Your task to perform on an android device: When is my next appointment? Image 0: 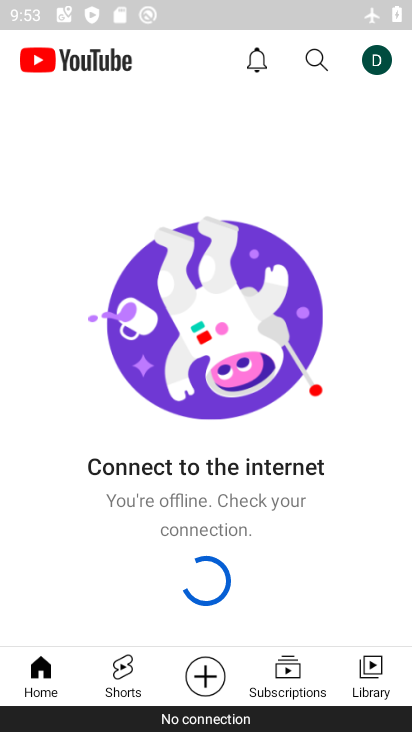
Step 0: press home button
Your task to perform on an android device: When is my next appointment? Image 1: 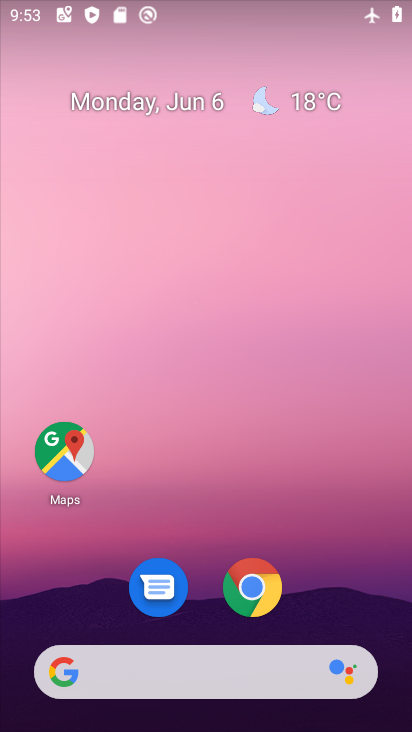
Step 1: drag from (323, 558) to (336, 172)
Your task to perform on an android device: When is my next appointment? Image 2: 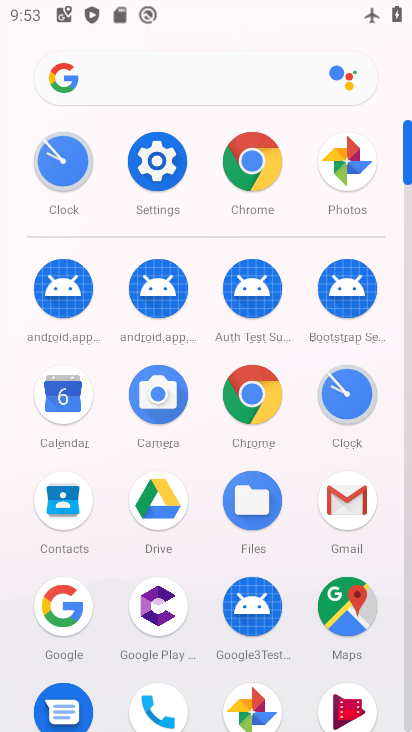
Step 2: click (63, 401)
Your task to perform on an android device: When is my next appointment? Image 3: 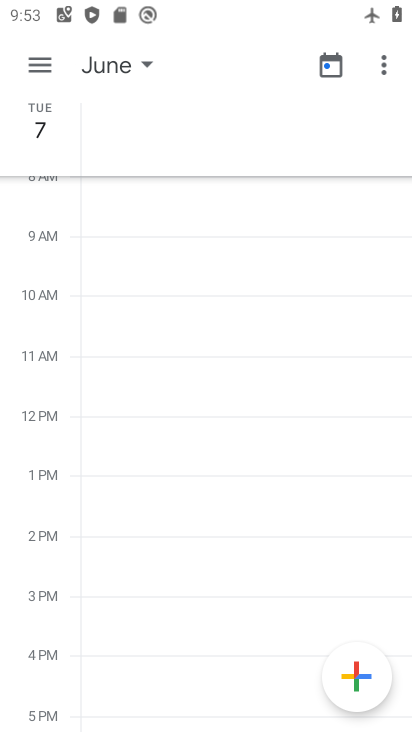
Step 3: click (100, 65)
Your task to perform on an android device: When is my next appointment? Image 4: 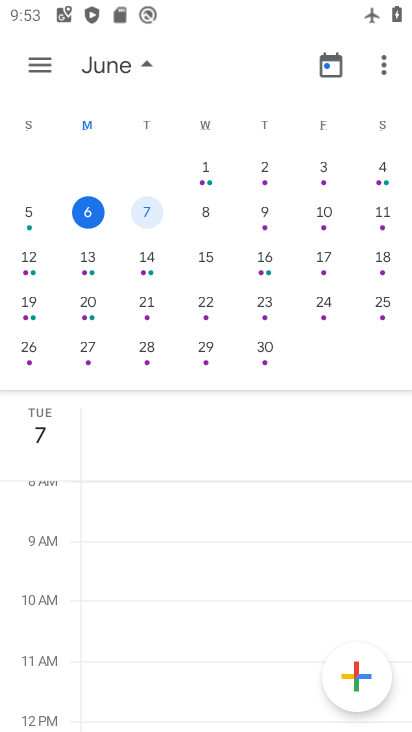
Step 4: click (89, 206)
Your task to perform on an android device: When is my next appointment? Image 5: 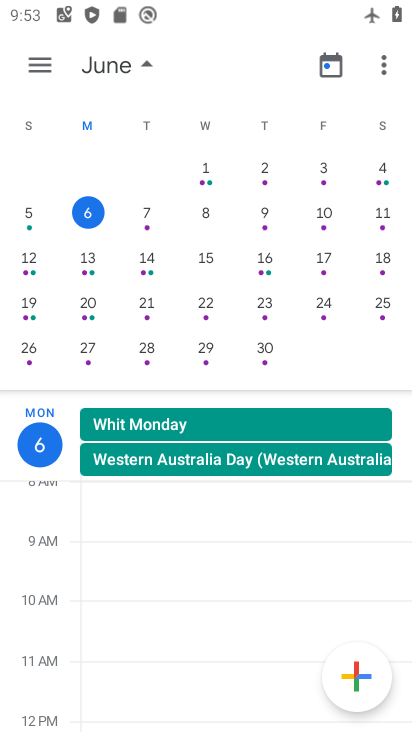
Step 5: task complete